Your task to perform on an android device: Search for acer predator on bestbuy, select the first entry, and add it to the cart. Image 0: 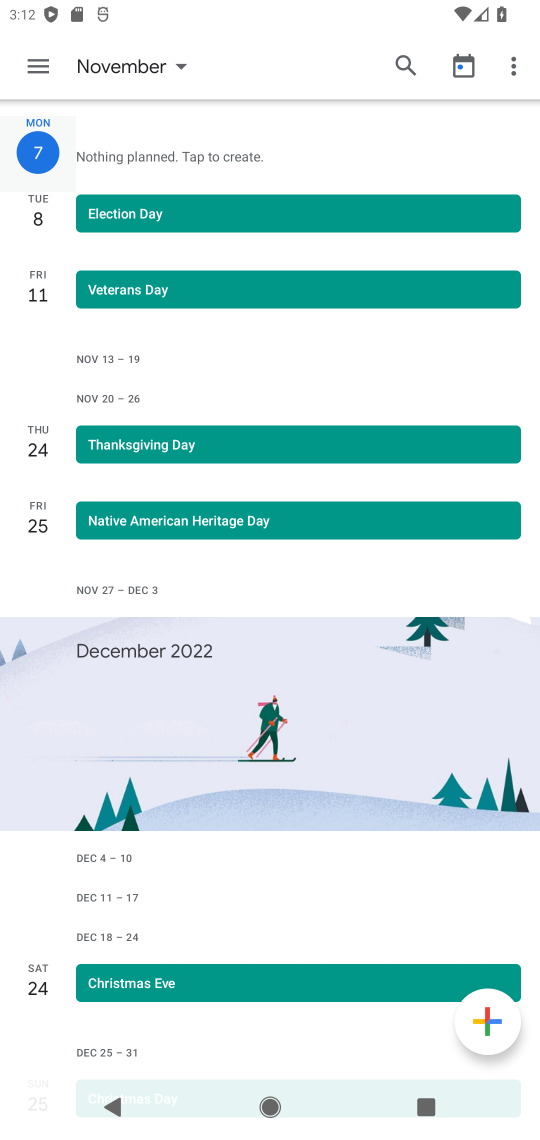
Step 0: press home button
Your task to perform on an android device: Search for acer predator on bestbuy, select the first entry, and add it to the cart. Image 1: 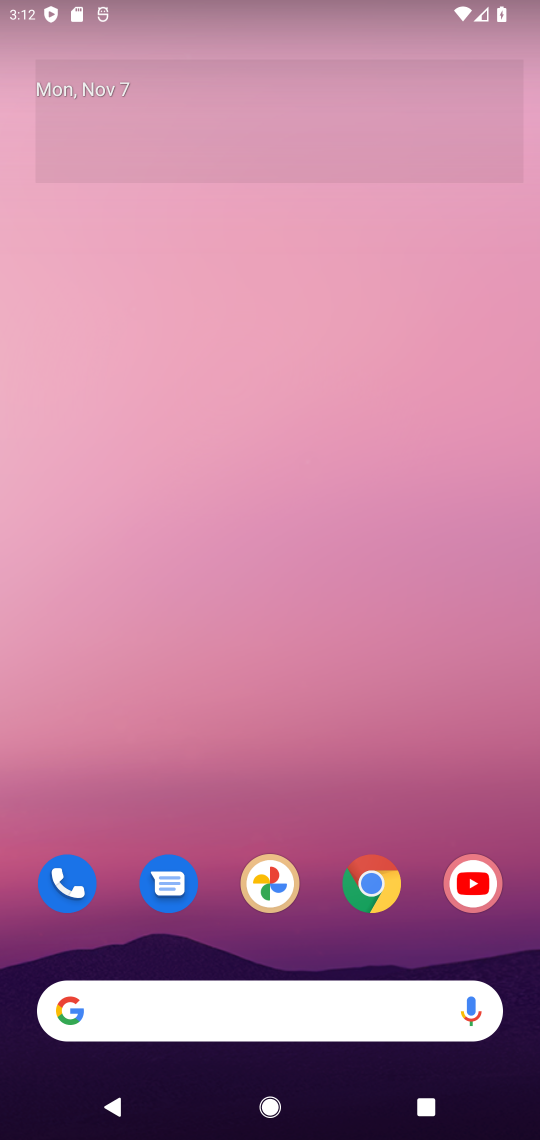
Step 1: click (354, 890)
Your task to perform on an android device: Search for acer predator on bestbuy, select the first entry, and add it to the cart. Image 2: 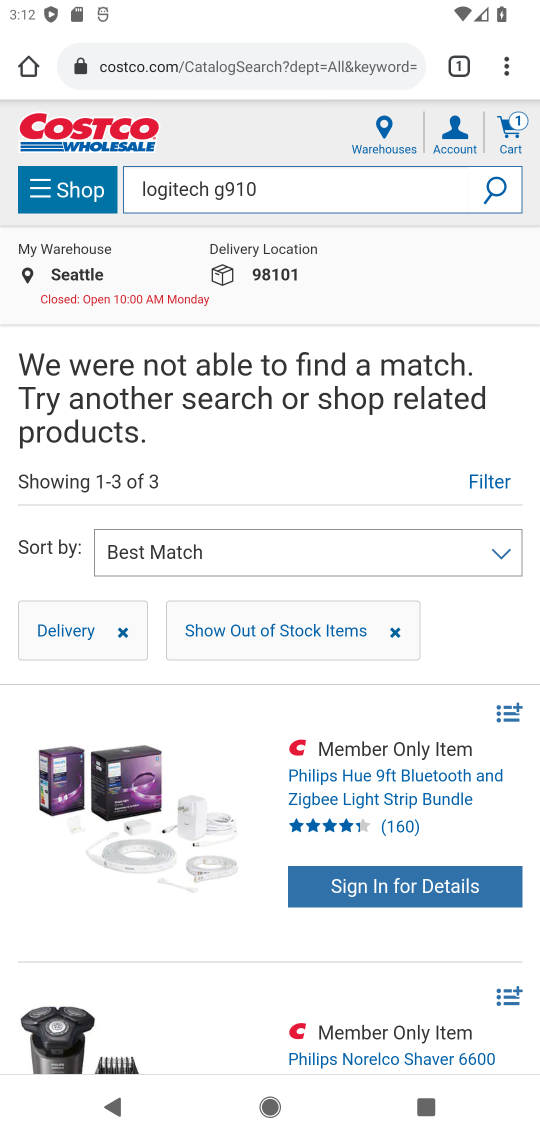
Step 2: click (303, 60)
Your task to perform on an android device: Search for acer predator on bestbuy, select the first entry, and add it to the cart. Image 3: 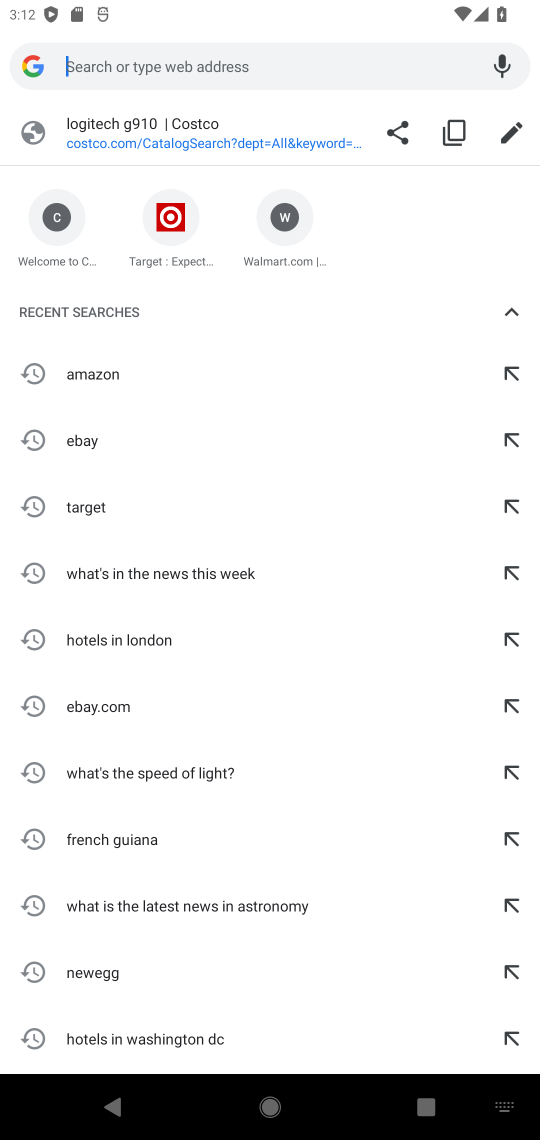
Step 3: type "bestbuy"
Your task to perform on an android device: Search for acer predator on bestbuy, select the first entry, and add it to the cart. Image 4: 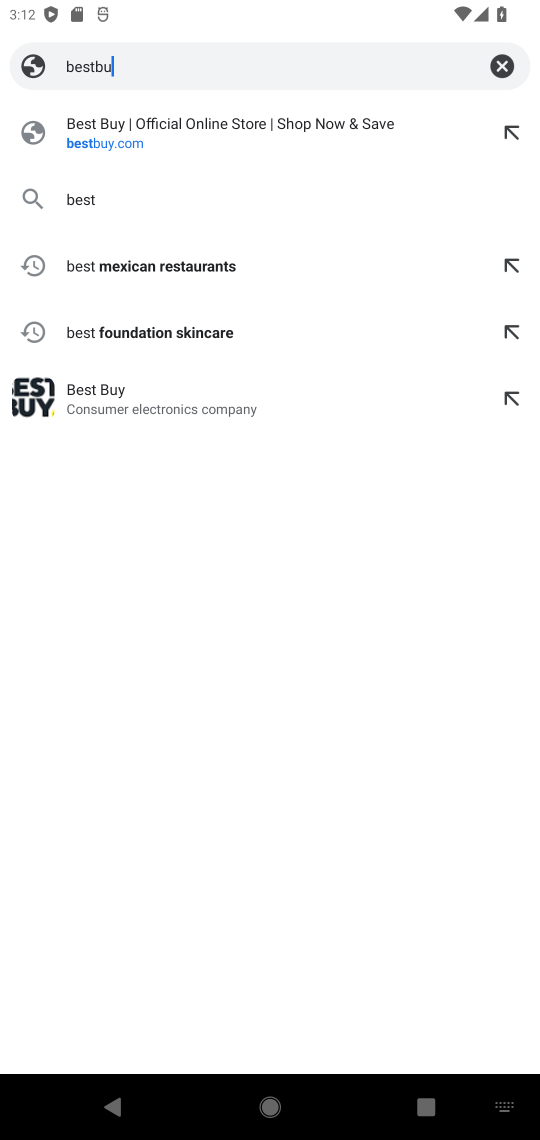
Step 4: press enter
Your task to perform on an android device: Search for acer predator on bestbuy, select the first entry, and add it to the cart. Image 5: 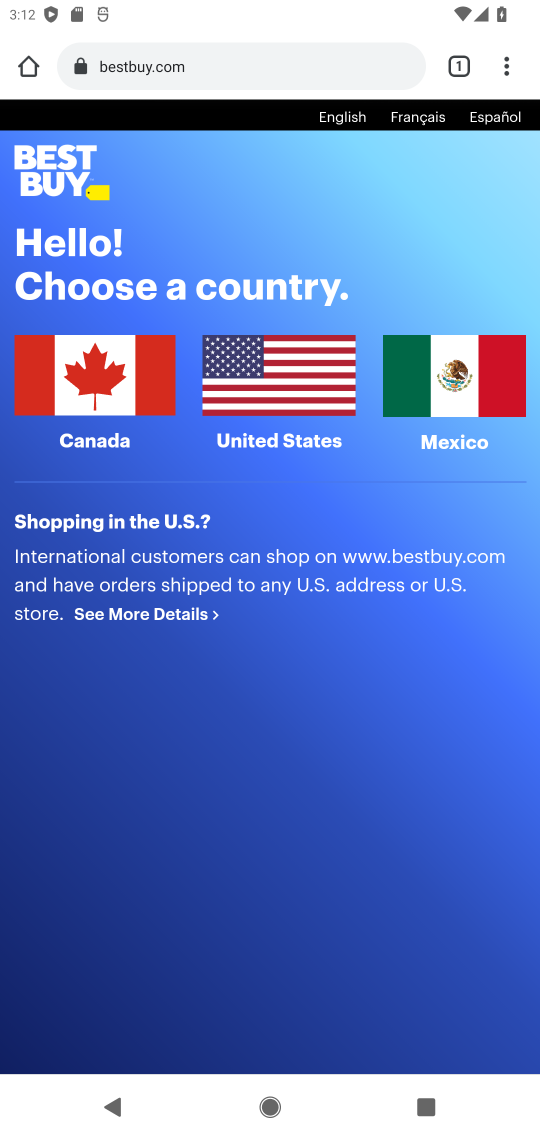
Step 5: click (99, 436)
Your task to perform on an android device: Search for acer predator on bestbuy, select the first entry, and add it to the cart. Image 6: 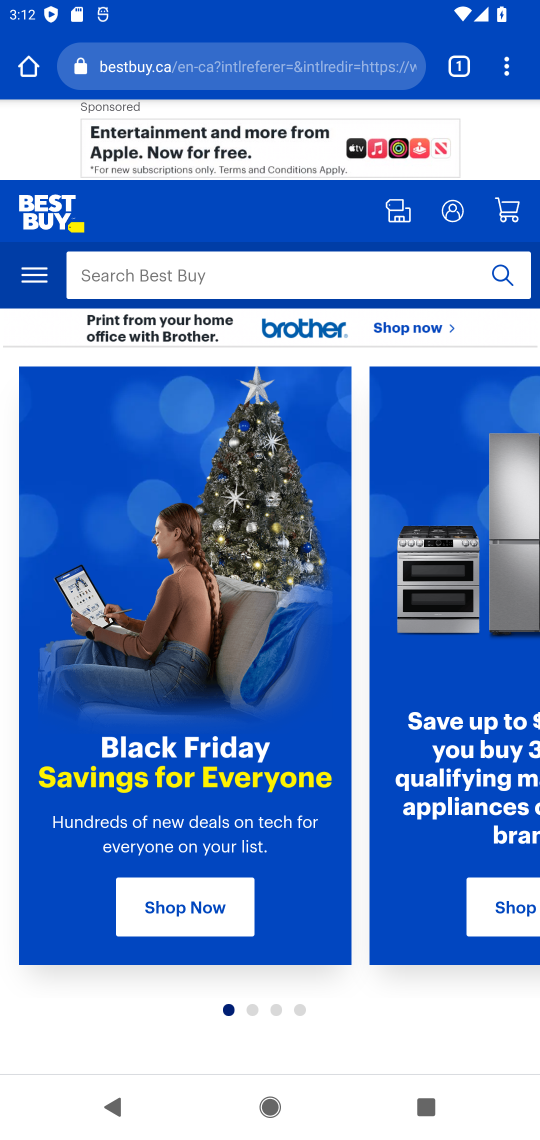
Step 6: click (226, 275)
Your task to perform on an android device: Search for acer predator on bestbuy, select the first entry, and add it to the cart. Image 7: 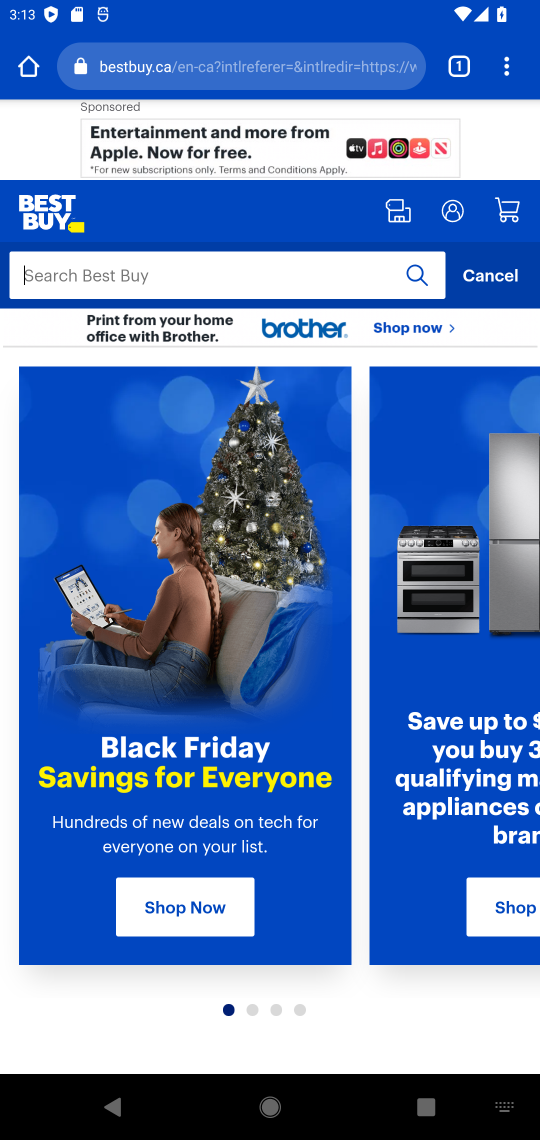
Step 7: type "acer predator"
Your task to perform on an android device: Search for acer predator on bestbuy, select the first entry, and add it to the cart. Image 8: 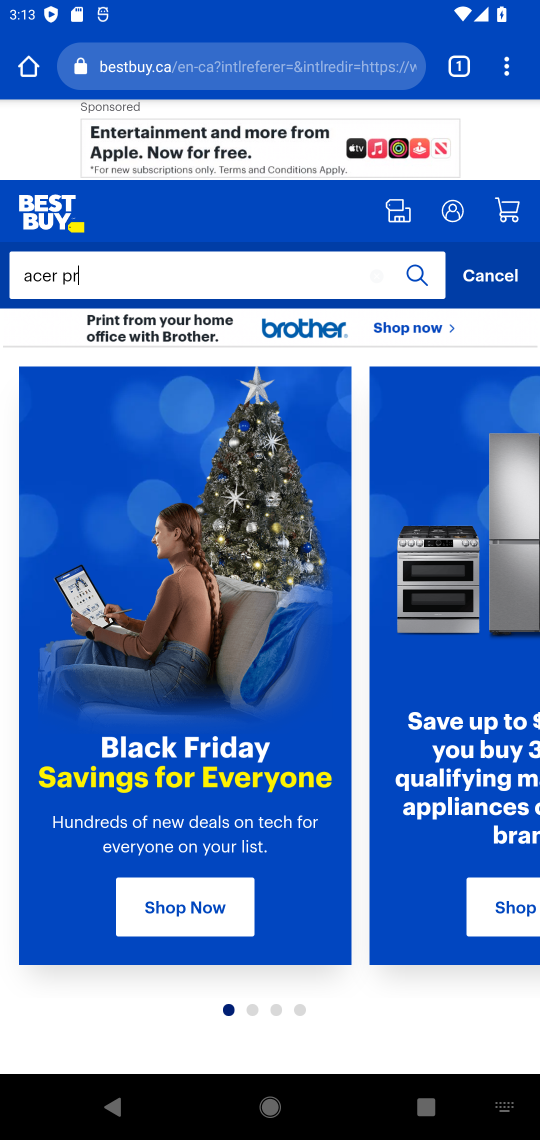
Step 8: press enter
Your task to perform on an android device: Search for acer predator on bestbuy, select the first entry, and add it to the cart. Image 9: 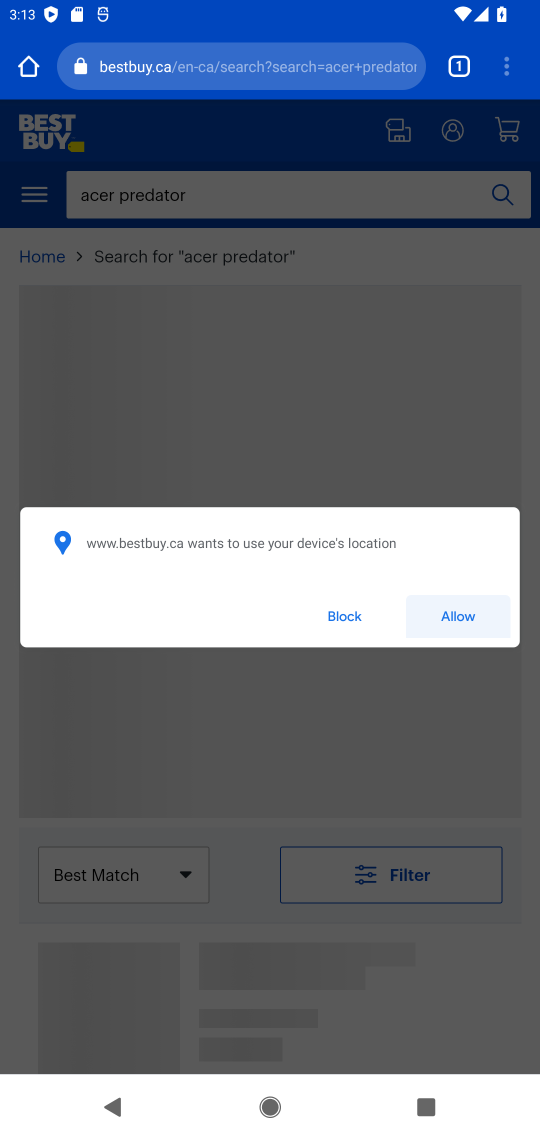
Step 9: click (340, 616)
Your task to perform on an android device: Search for acer predator on bestbuy, select the first entry, and add it to the cart. Image 10: 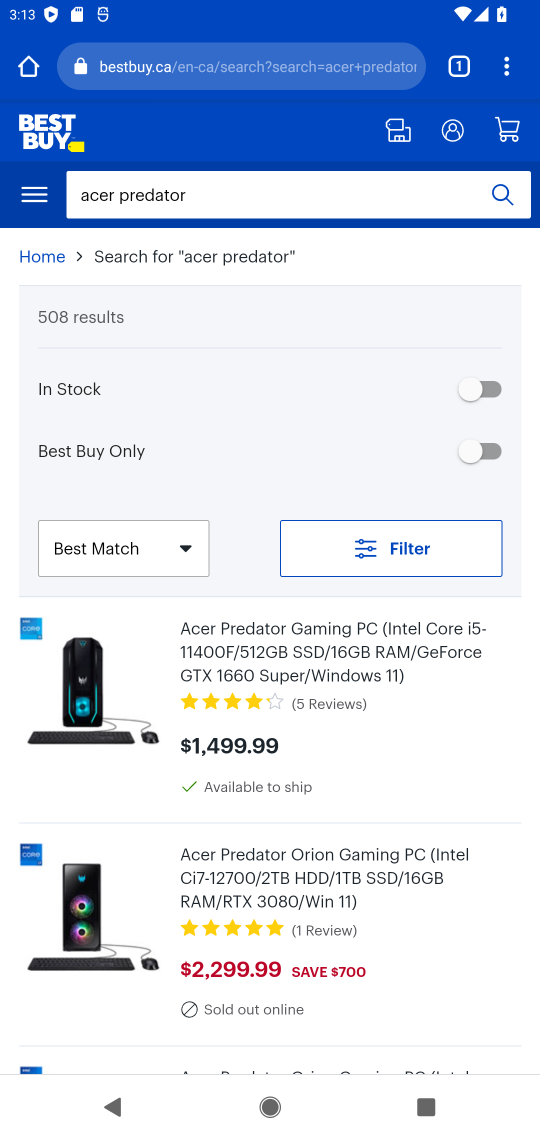
Step 10: task complete